Your task to perform on an android device: set the timer Image 0: 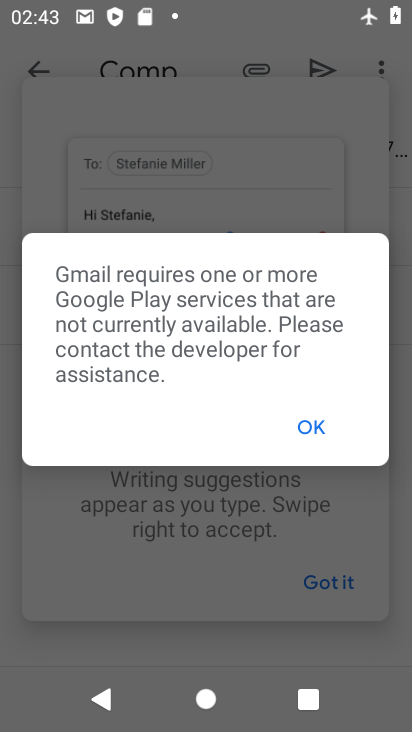
Step 0: press home button
Your task to perform on an android device: set the timer Image 1: 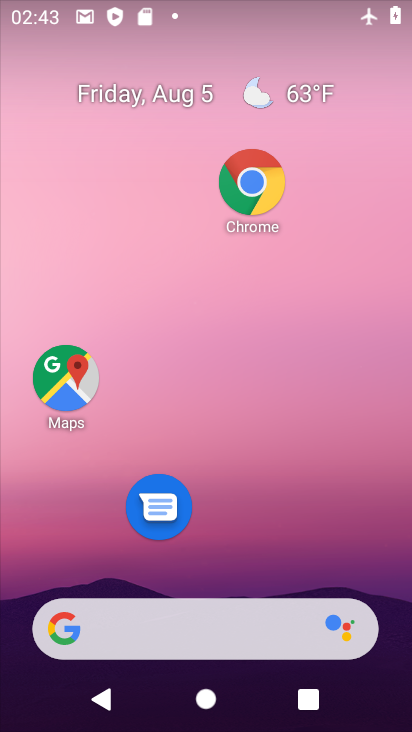
Step 1: drag from (187, 597) to (213, 38)
Your task to perform on an android device: set the timer Image 2: 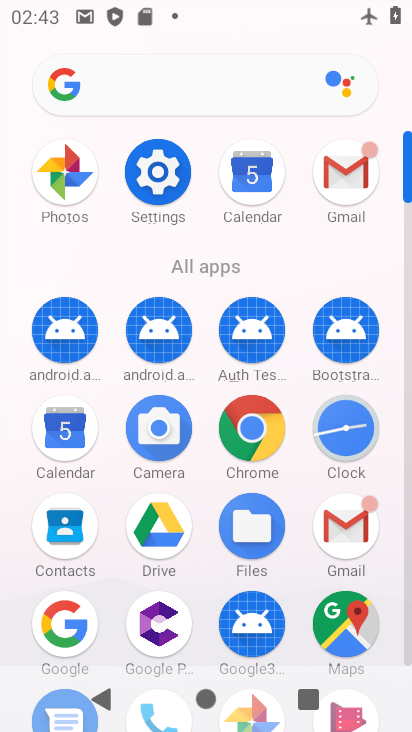
Step 2: drag from (189, 498) to (187, 215)
Your task to perform on an android device: set the timer Image 3: 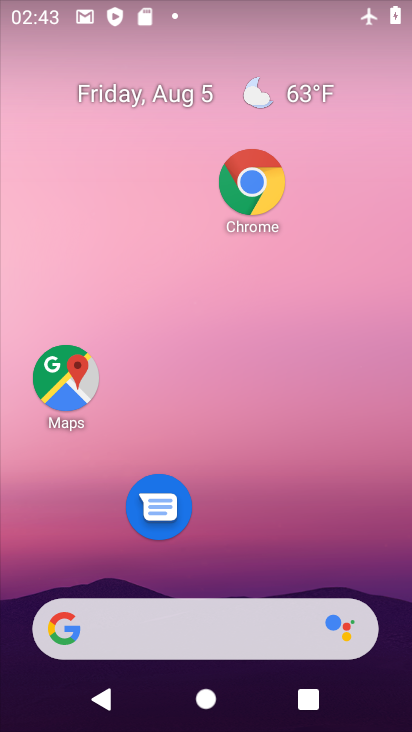
Step 3: drag from (215, 571) to (149, 49)
Your task to perform on an android device: set the timer Image 4: 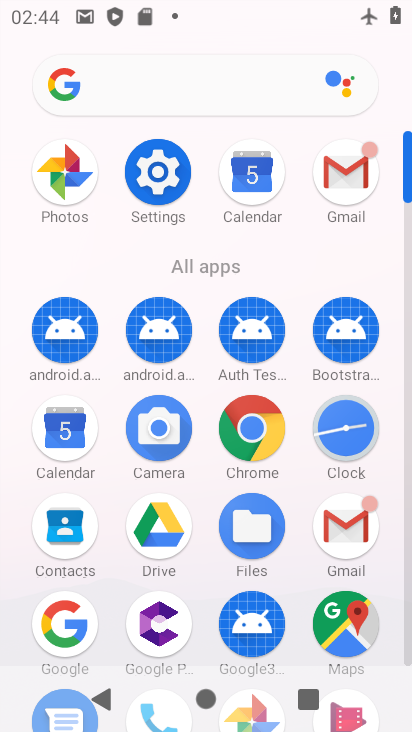
Step 4: drag from (215, 515) to (215, 161)
Your task to perform on an android device: set the timer Image 5: 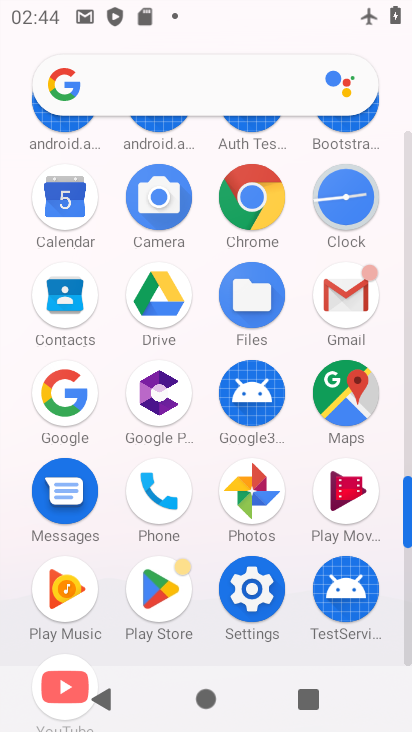
Step 5: click (343, 200)
Your task to perform on an android device: set the timer Image 6: 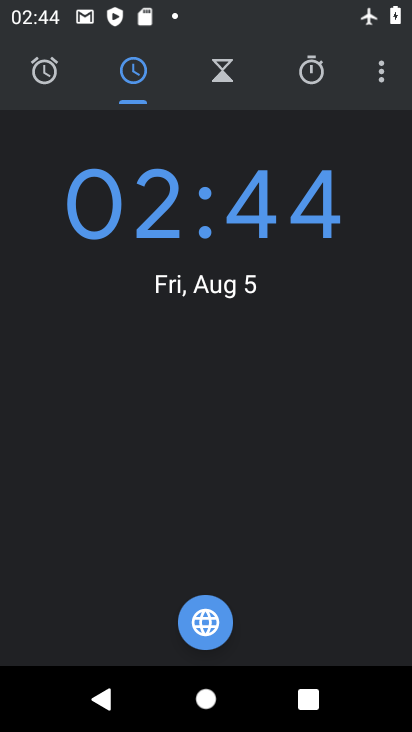
Step 6: click (225, 72)
Your task to perform on an android device: set the timer Image 7: 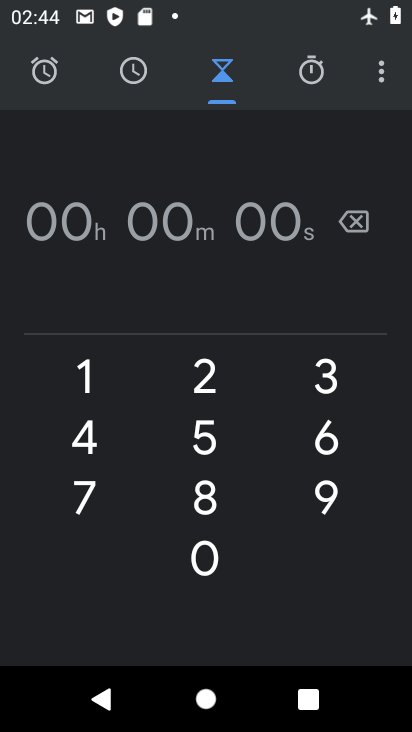
Step 7: click (85, 503)
Your task to perform on an android device: set the timer Image 8: 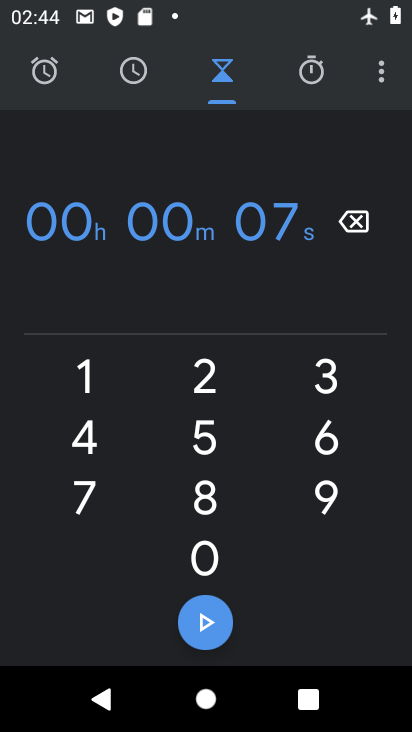
Step 8: click (206, 430)
Your task to perform on an android device: set the timer Image 9: 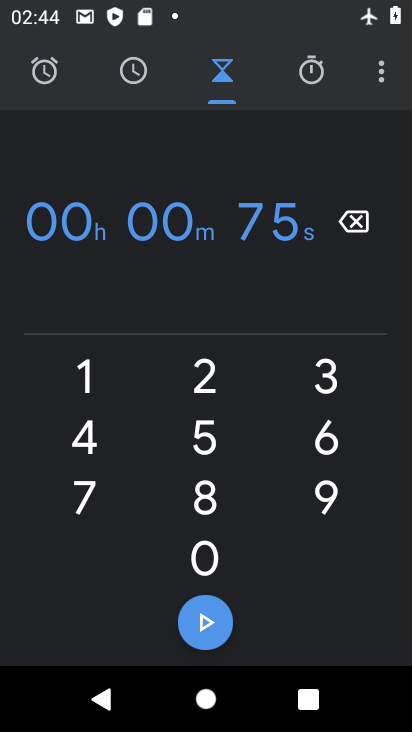
Step 9: click (334, 441)
Your task to perform on an android device: set the timer Image 10: 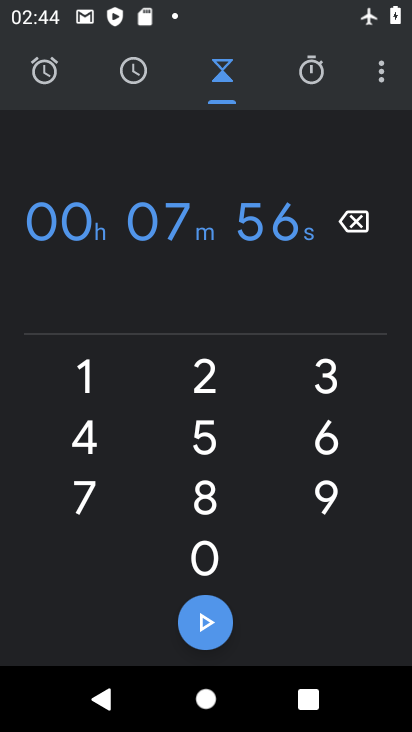
Step 10: click (199, 634)
Your task to perform on an android device: set the timer Image 11: 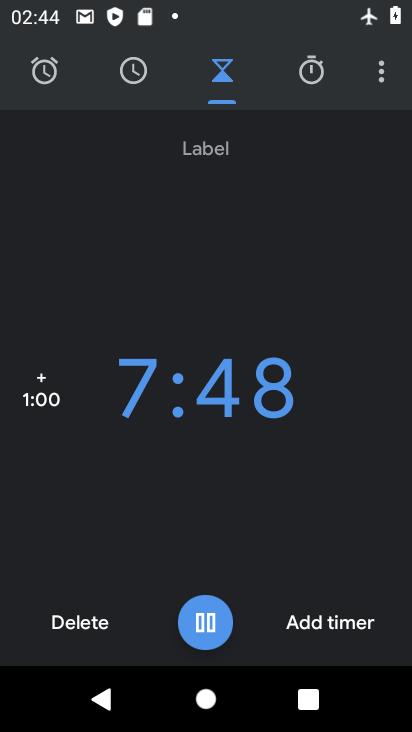
Step 11: task complete